Your task to perform on an android device: see sites visited before in the chrome app Image 0: 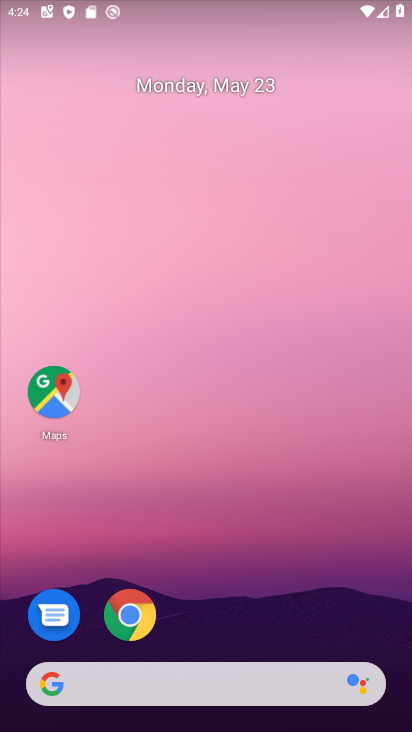
Step 0: drag from (233, 581) to (239, 678)
Your task to perform on an android device: see sites visited before in the chrome app Image 1: 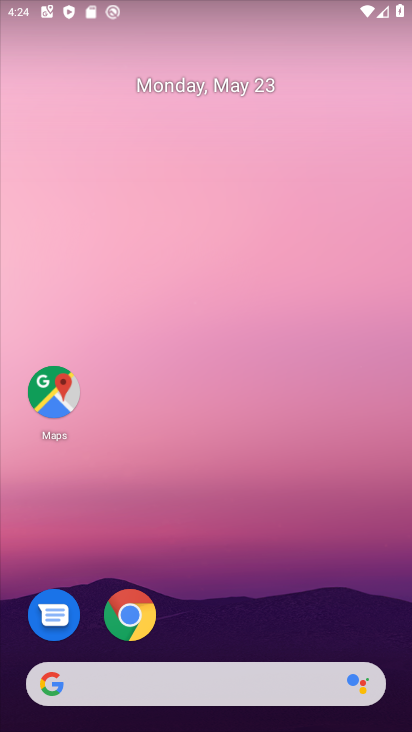
Step 1: click (135, 607)
Your task to perform on an android device: see sites visited before in the chrome app Image 2: 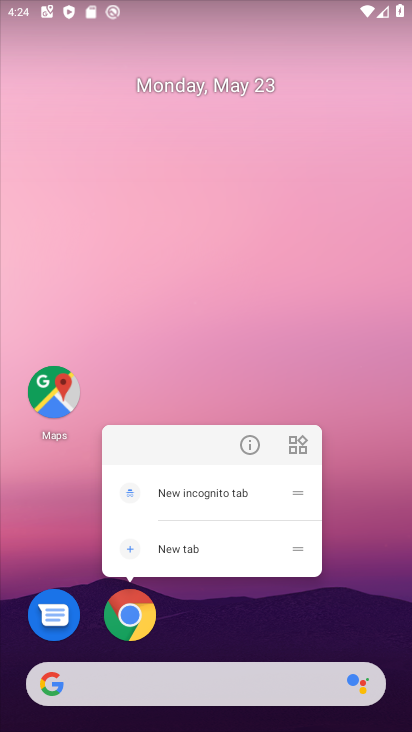
Step 2: click (130, 609)
Your task to perform on an android device: see sites visited before in the chrome app Image 3: 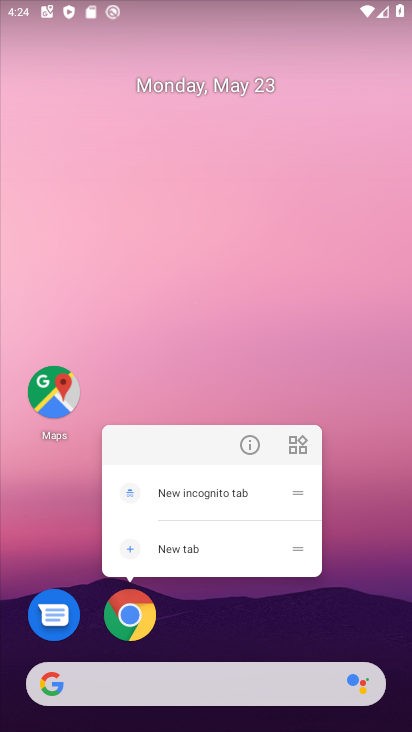
Step 3: click (138, 618)
Your task to perform on an android device: see sites visited before in the chrome app Image 4: 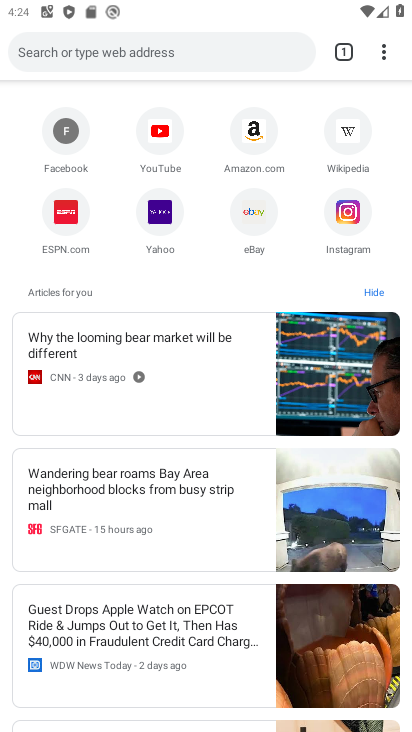
Step 4: task complete